Your task to perform on an android device: Go to Maps Image 0: 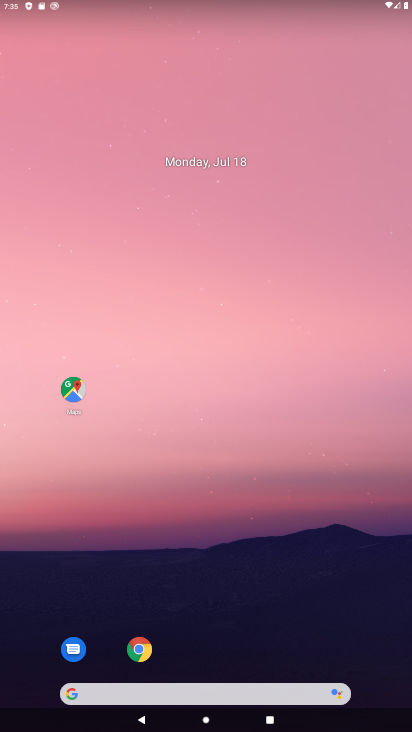
Step 0: click (80, 396)
Your task to perform on an android device: Go to Maps Image 1: 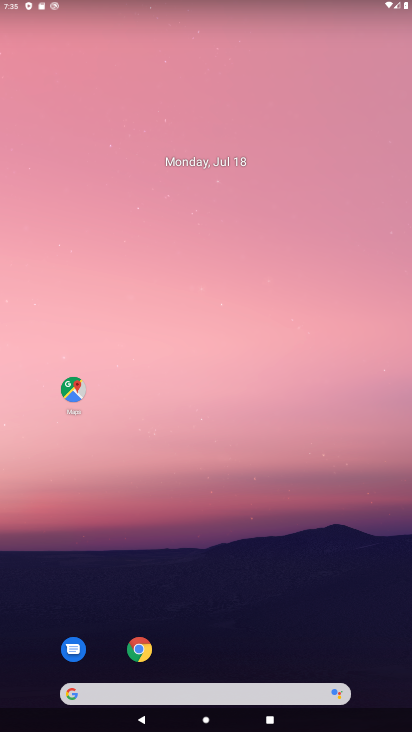
Step 1: click (80, 396)
Your task to perform on an android device: Go to Maps Image 2: 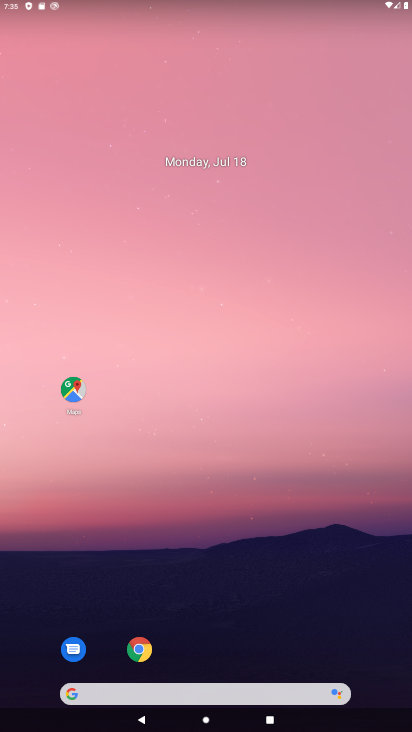
Step 2: click (80, 396)
Your task to perform on an android device: Go to Maps Image 3: 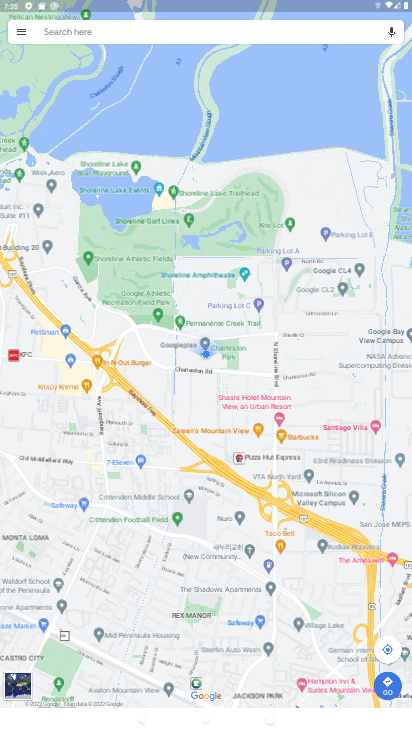
Step 3: task complete